Your task to perform on an android device: What's the weather going to be this weekend? Image 0: 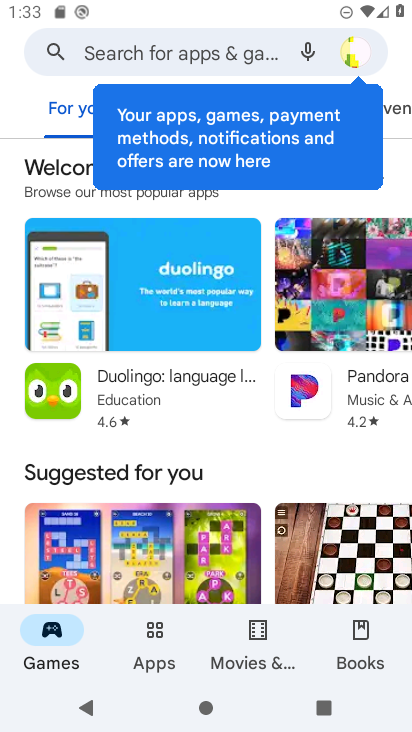
Step 0: press home button
Your task to perform on an android device: What's the weather going to be this weekend? Image 1: 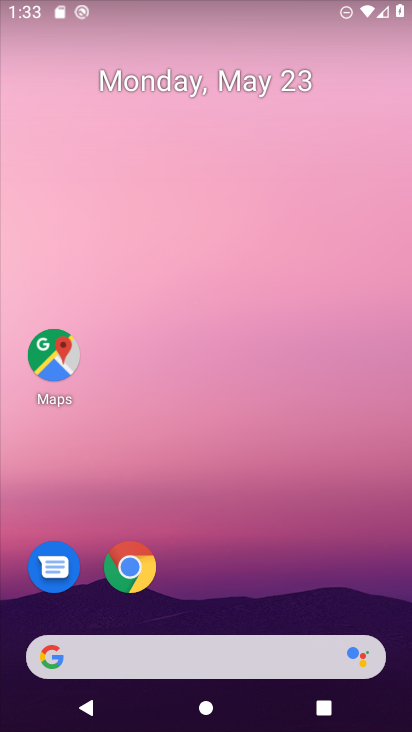
Step 1: click (124, 572)
Your task to perform on an android device: What's the weather going to be this weekend? Image 2: 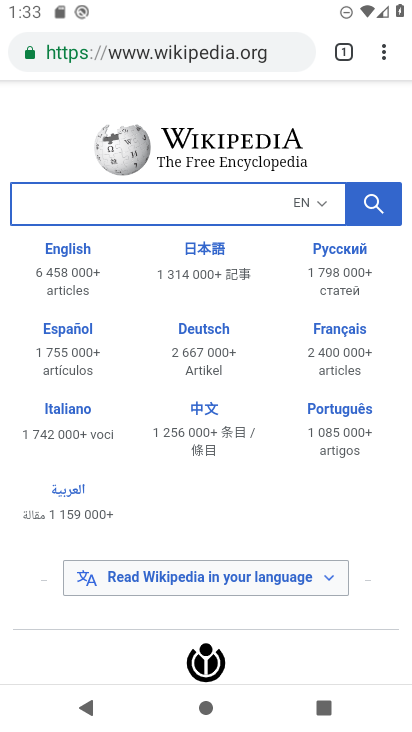
Step 2: click (148, 58)
Your task to perform on an android device: What's the weather going to be this weekend? Image 3: 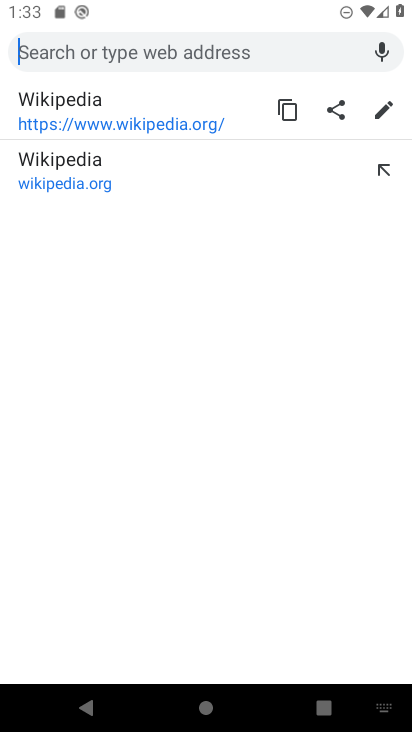
Step 3: type "What's the weather going to be this weekend?"
Your task to perform on an android device: What's the weather going to be this weekend? Image 4: 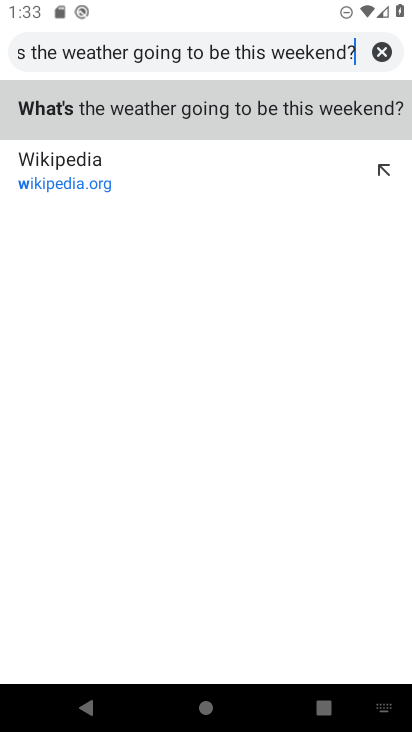
Step 4: type ""
Your task to perform on an android device: What's the weather going to be this weekend? Image 5: 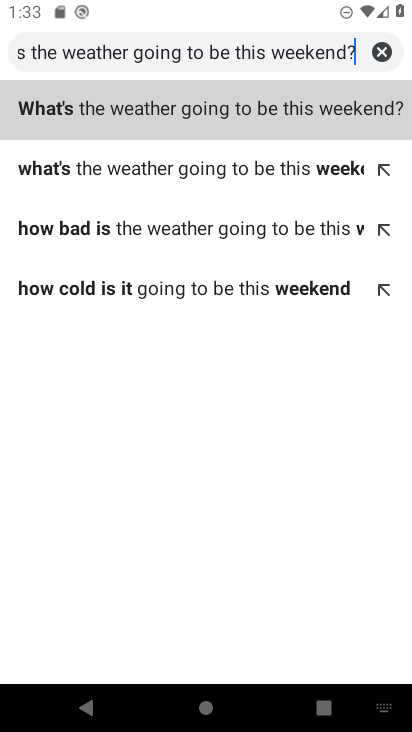
Step 5: click (113, 102)
Your task to perform on an android device: What's the weather going to be this weekend? Image 6: 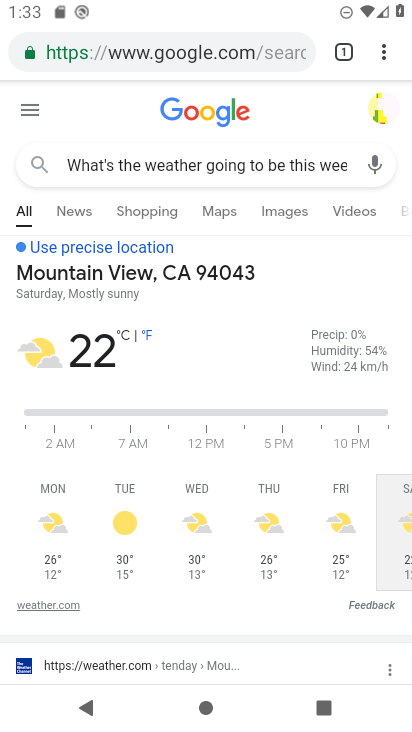
Step 6: task complete